Your task to perform on an android device: Go to display settings Image 0: 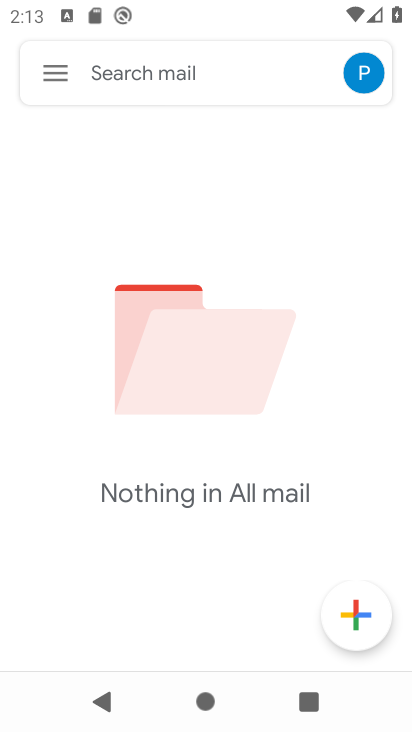
Step 0: press home button
Your task to perform on an android device: Go to display settings Image 1: 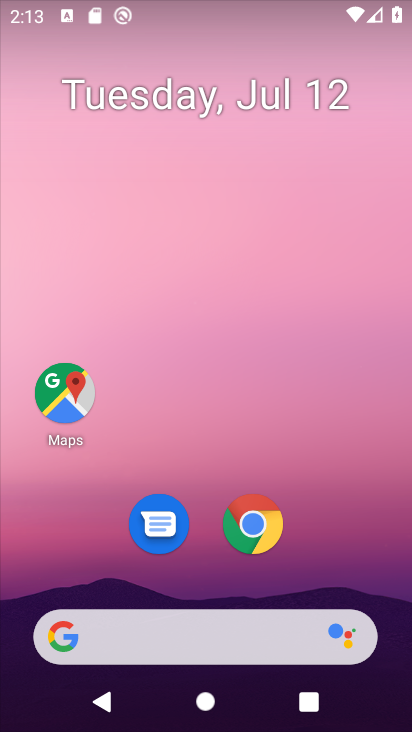
Step 1: drag from (316, 561) to (333, 36)
Your task to perform on an android device: Go to display settings Image 2: 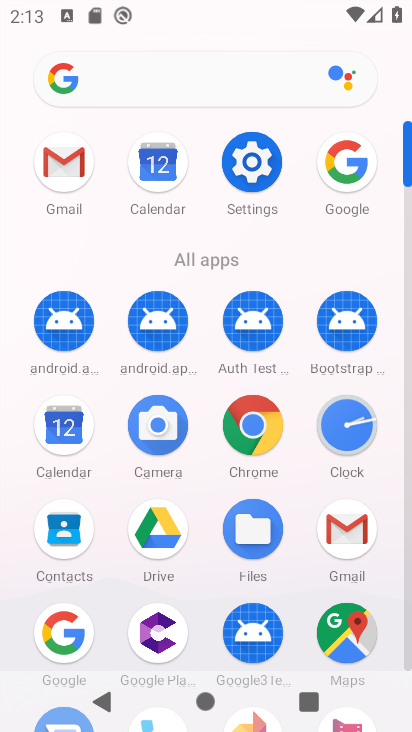
Step 2: click (270, 166)
Your task to perform on an android device: Go to display settings Image 3: 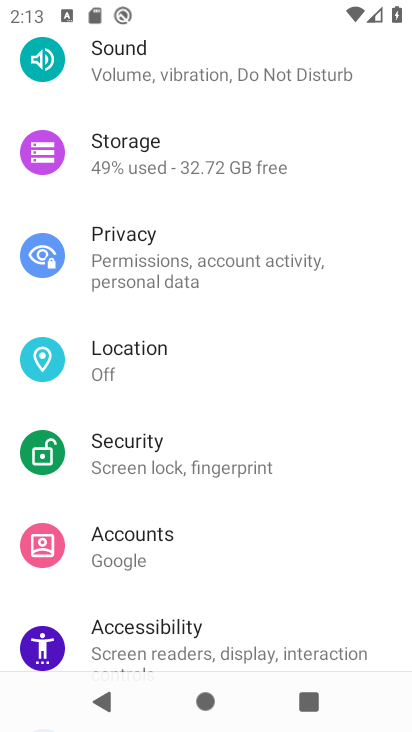
Step 3: drag from (230, 143) to (200, 620)
Your task to perform on an android device: Go to display settings Image 4: 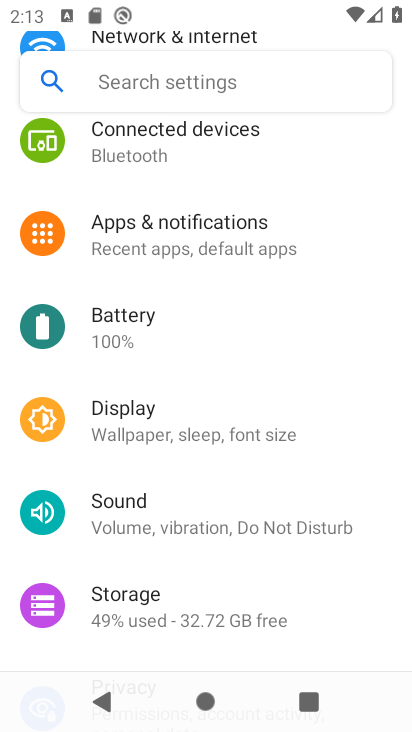
Step 4: click (168, 415)
Your task to perform on an android device: Go to display settings Image 5: 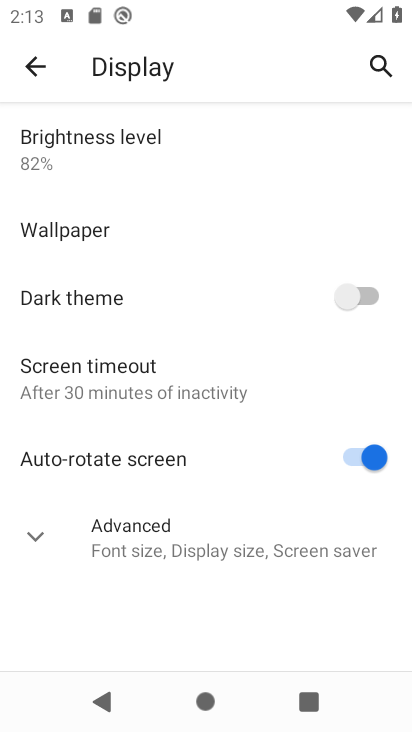
Step 5: click (38, 532)
Your task to perform on an android device: Go to display settings Image 6: 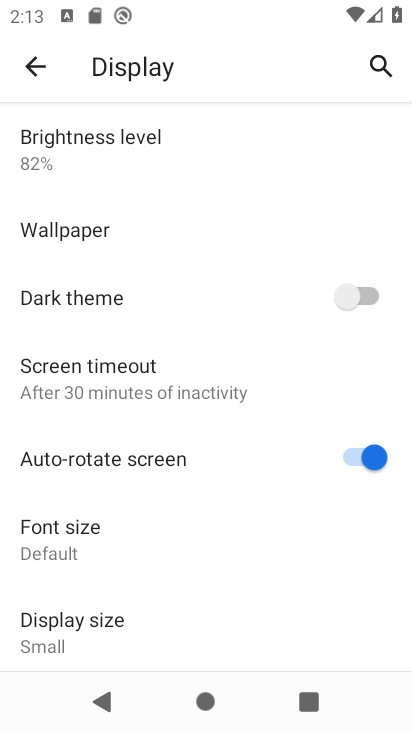
Step 6: task complete